Your task to perform on an android device: Open network settings Image 0: 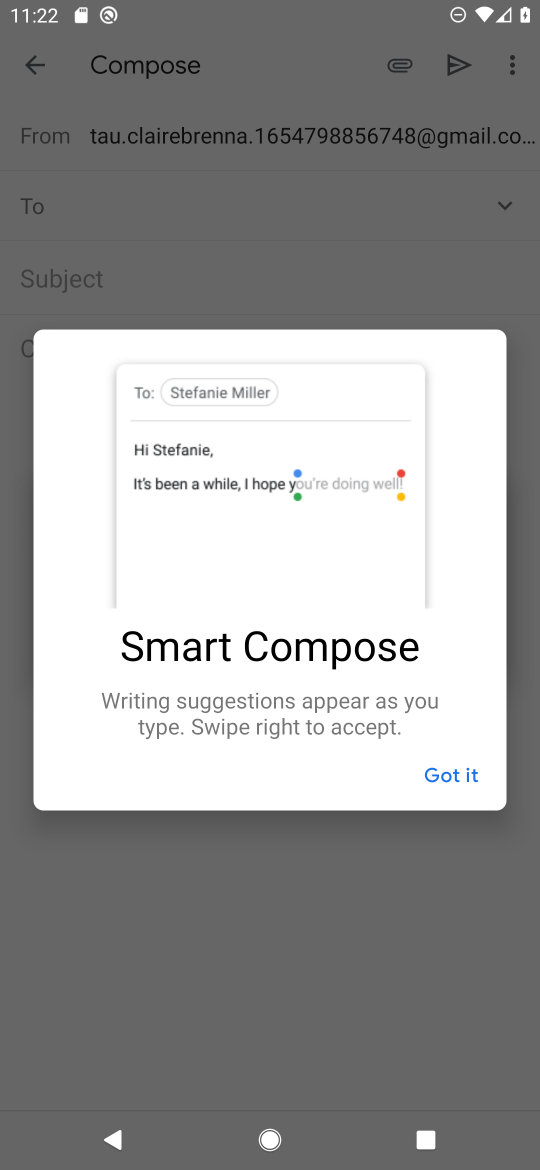
Step 0: press home button
Your task to perform on an android device: Open network settings Image 1: 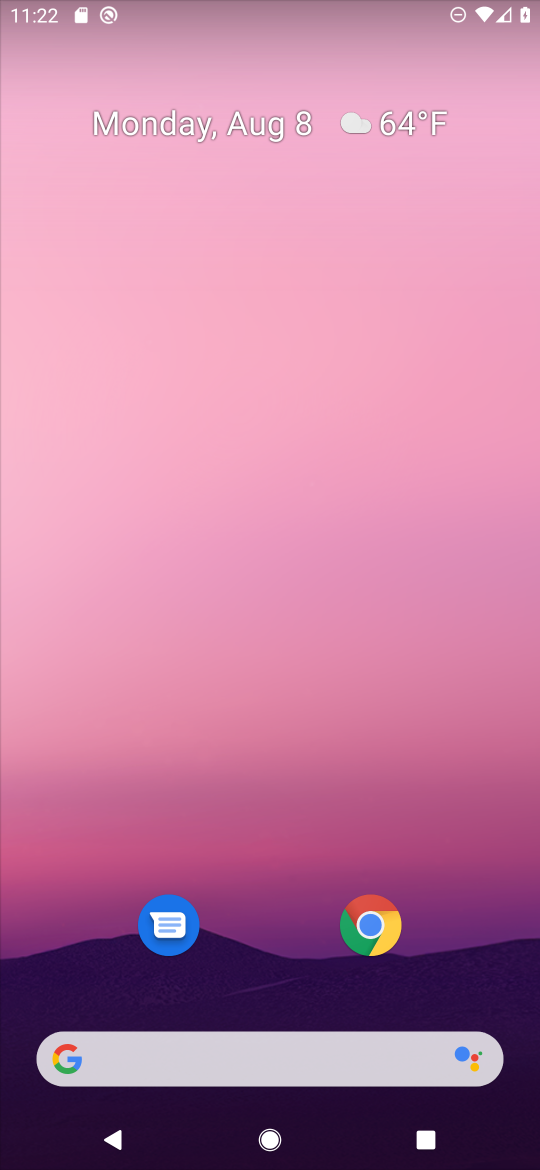
Step 1: drag from (209, 960) to (311, 81)
Your task to perform on an android device: Open network settings Image 2: 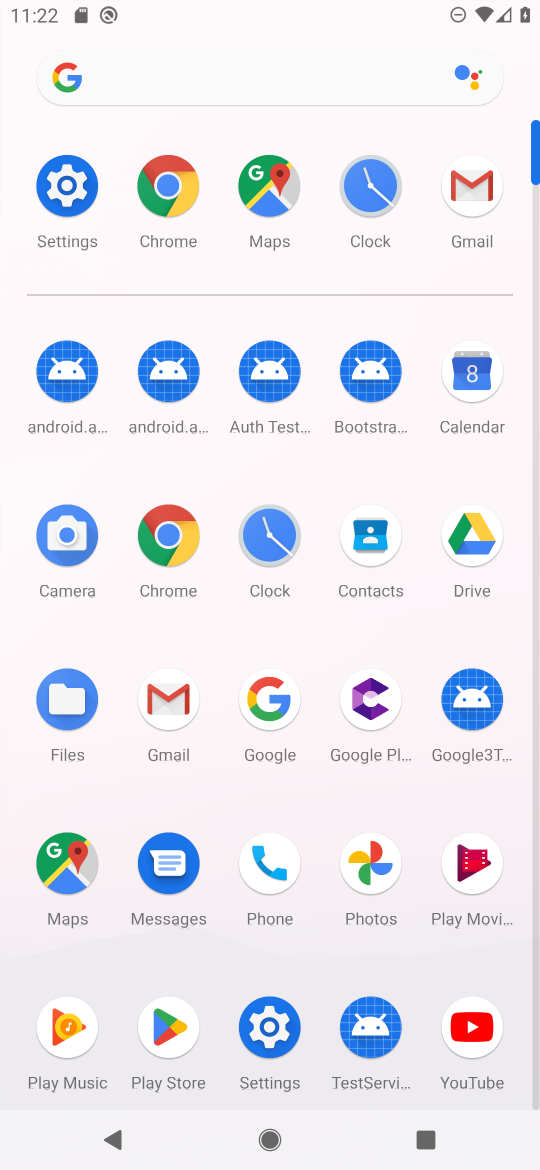
Step 2: click (261, 1021)
Your task to perform on an android device: Open network settings Image 3: 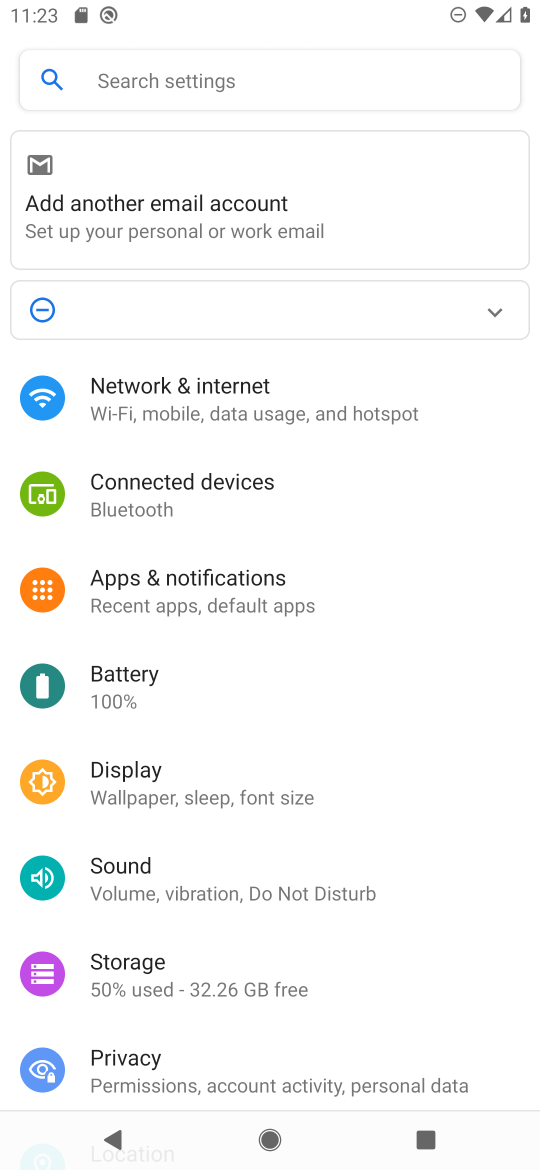
Step 3: click (96, 409)
Your task to perform on an android device: Open network settings Image 4: 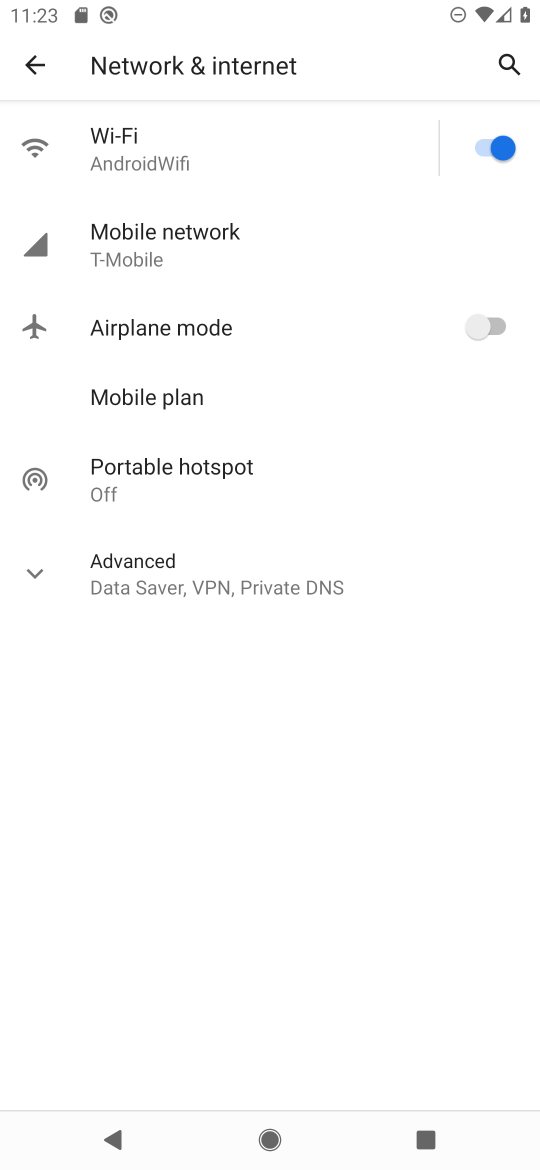
Step 4: task complete